Your task to perform on an android device: allow notifications from all sites in the chrome app Image 0: 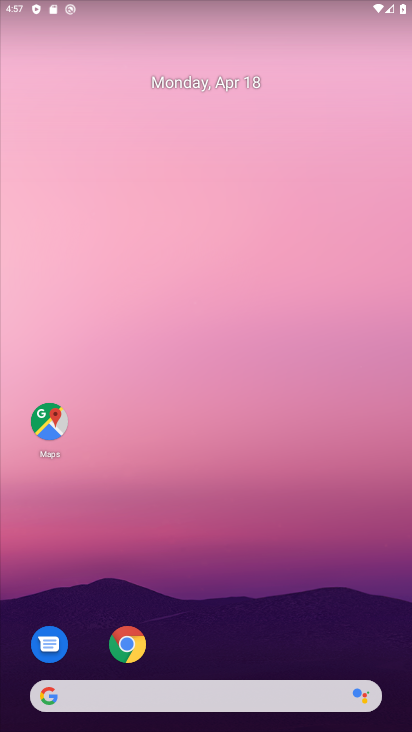
Step 0: click (133, 644)
Your task to perform on an android device: allow notifications from all sites in the chrome app Image 1: 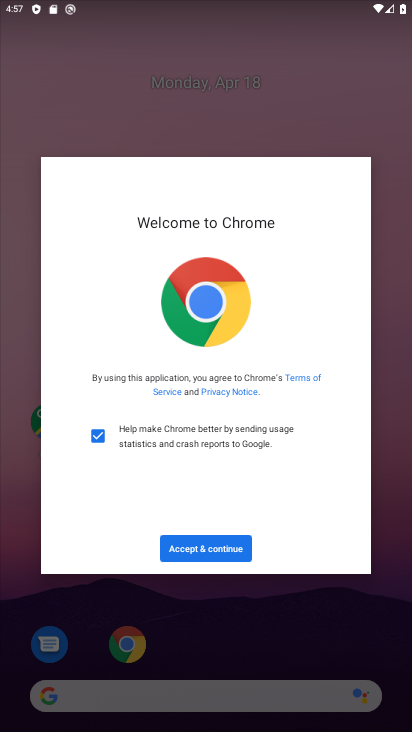
Step 1: click (205, 544)
Your task to perform on an android device: allow notifications from all sites in the chrome app Image 2: 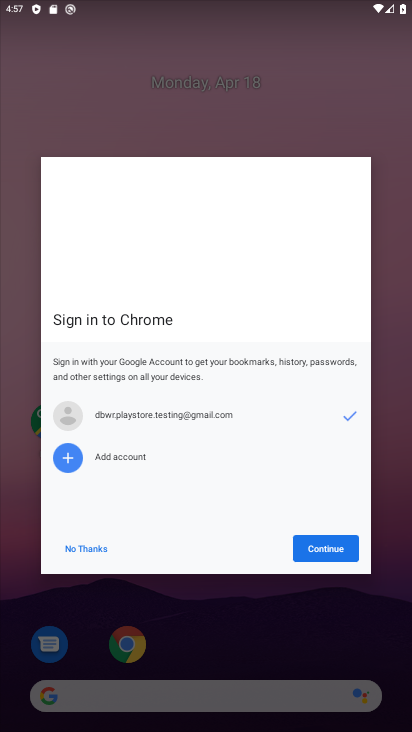
Step 2: click (312, 539)
Your task to perform on an android device: allow notifications from all sites in the chrome app Image 3: 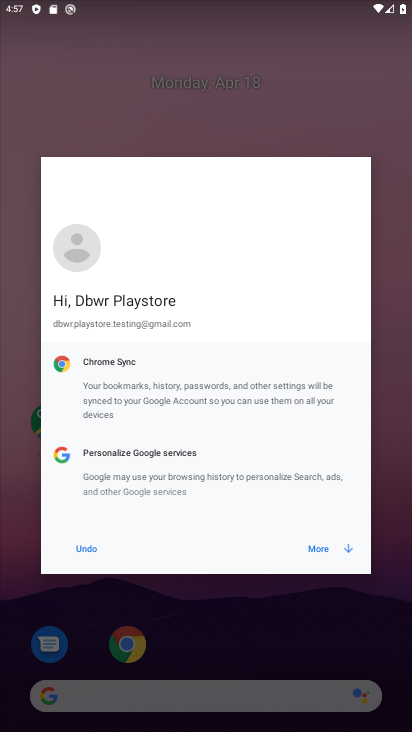
Step 3: click (322, 548)
Your task to perform on an android device: allow notifications from all sites in the chrome app Image 4: 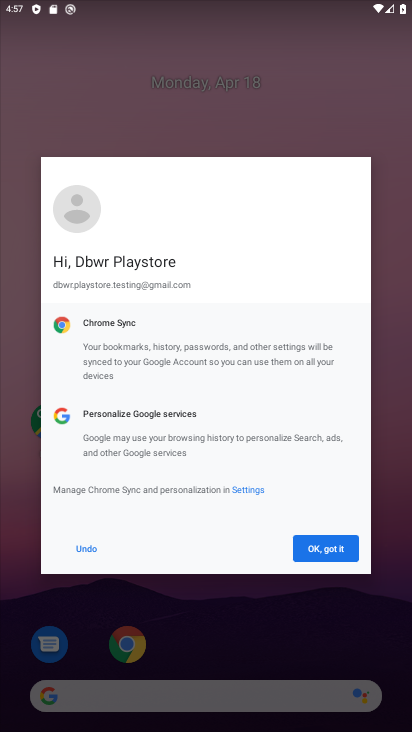
Step 4: click (322, 548)
Your task to perform on an android device: allow notifications from all sites in the chrome app Image 5: 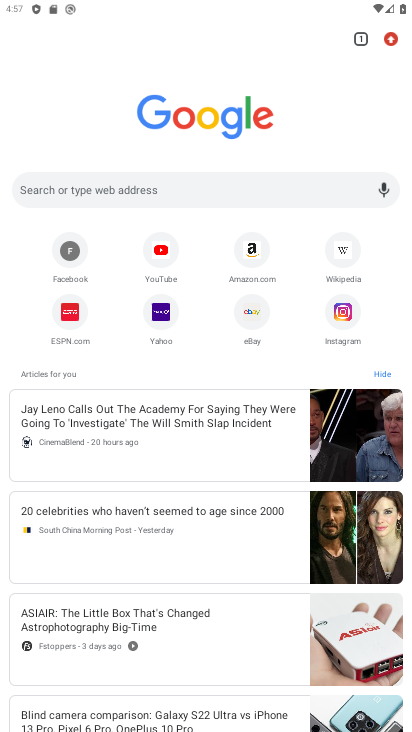
Step 5: click (388, 31)
Your task to perform on an android device: allow notifications from all sites in the chrome app Image 6: 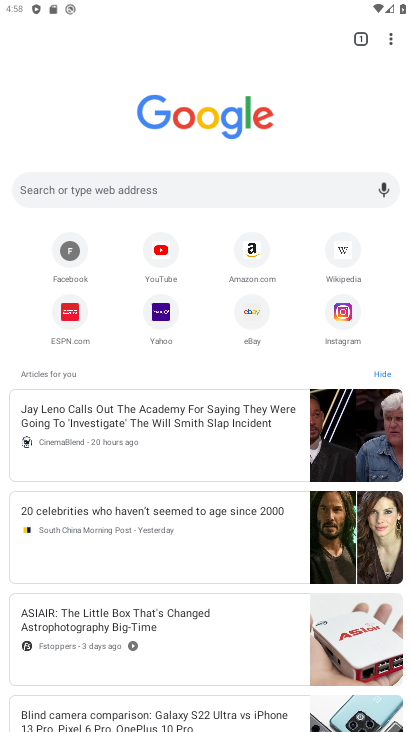
Step 6: click (387, 31)
Your task to perform on an android device: allow notifications from all sites in the chrome app Image 7: 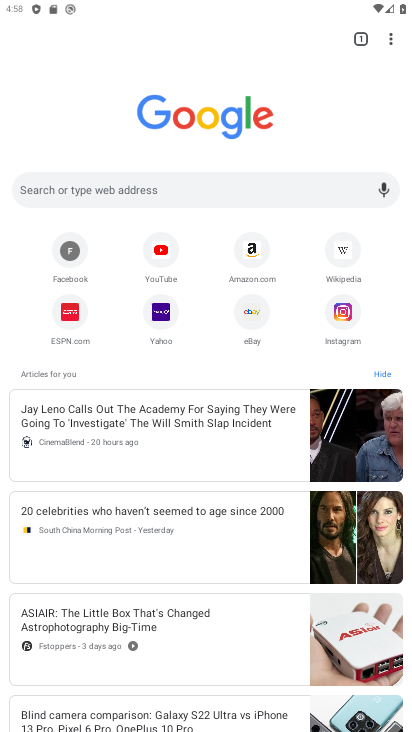
Step 7: click (388, 38)
Your task to perform on an android device: allow notifications from all sites in the chrome app Image 8: 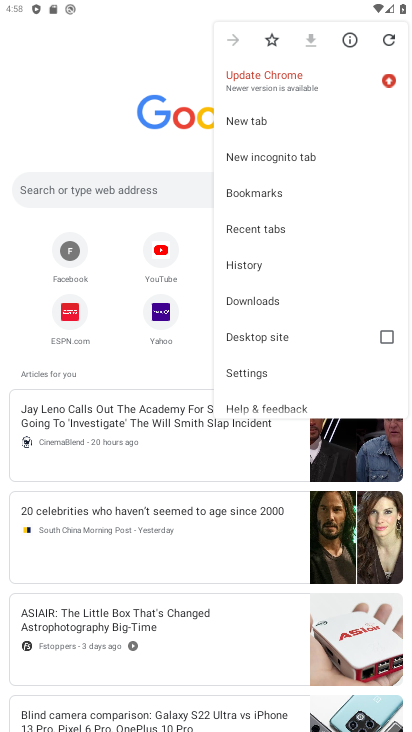
Step 8: click (276, 368)
Your task to perform on an android device: allow notifications from all sites in the chrome app Image 9: 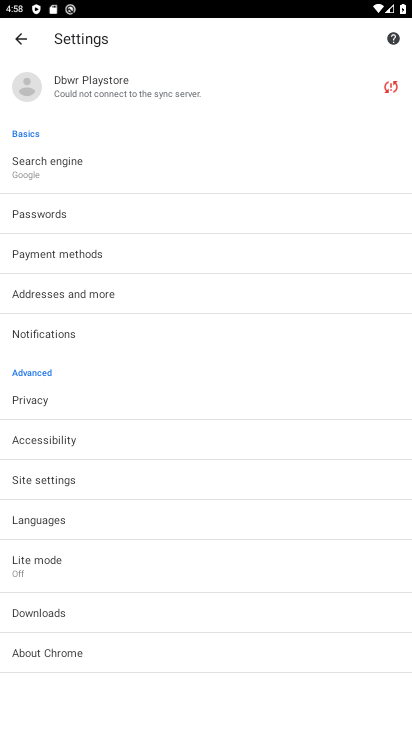
Step 9: click (70, 483)
Your task to perform on an android device: allow notifications from all sites in the chrome app Image 10: 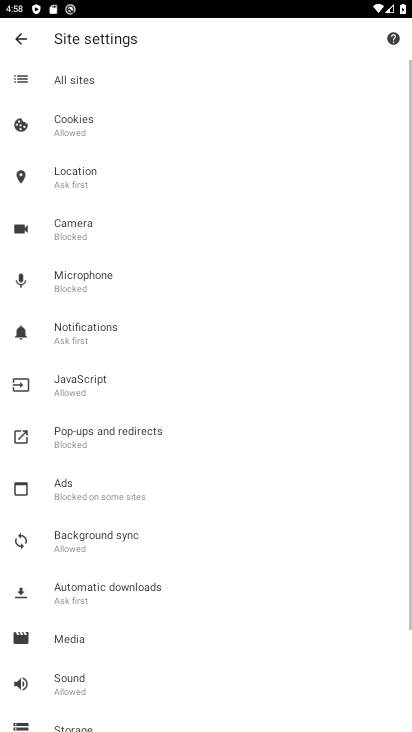
Step 10: click (89, 75)
Your task to perform on an android device: allow notifications from all sites in the chrome app Image 11: 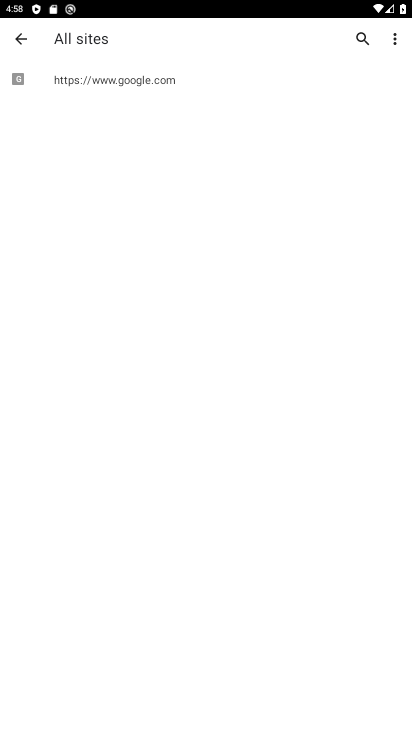
Step 11: click (94, 82)
Your task to perform on an android device: allow notifications from all sites in the chrome app Image 12: 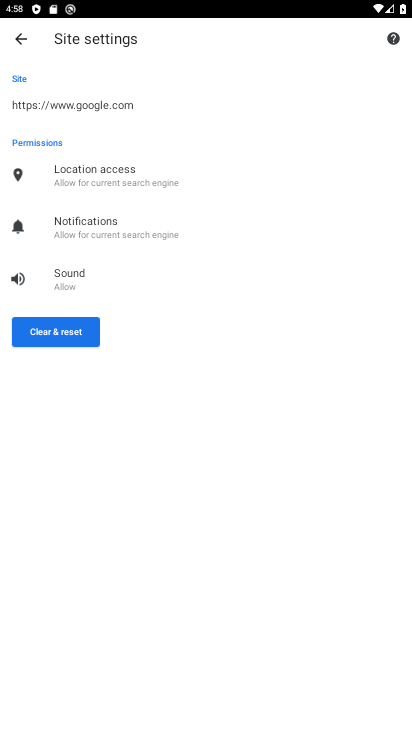
Step 12: click (40, 169)
Your task to perform on an android device: allow notifications from all sites in the chrome app Image 13: 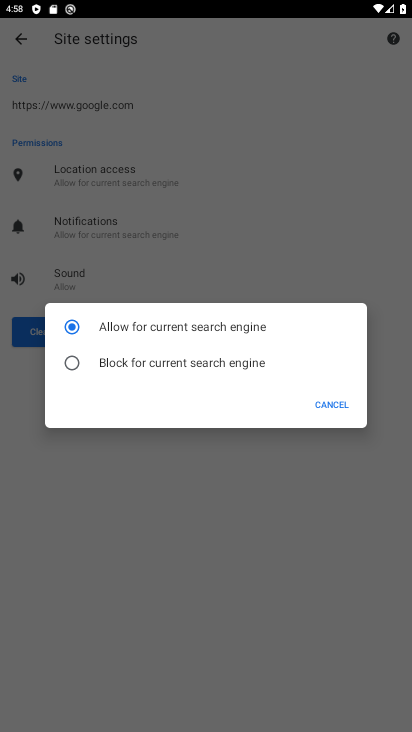
Step 13: click (319, 400)
Your task to perform on an android device: allow notifications from all sites in the chrome app Image 14: 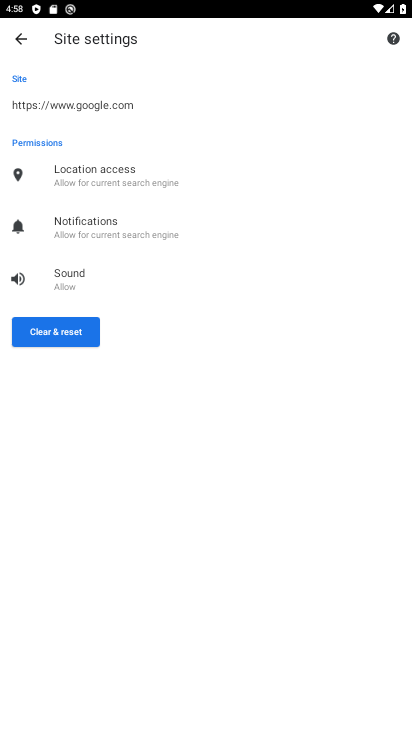
Step 14: task complete